Your task to perform on an android device: delete the emails in spam in the gmail app Image 0: 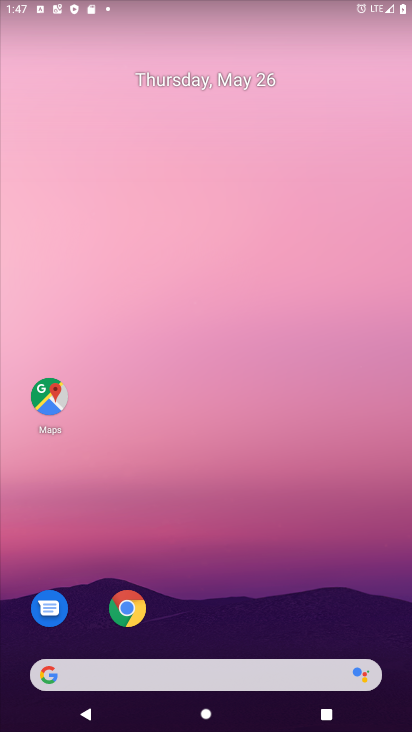
Step 0: drag from (376, 591) to (306, 264)
Your task to perform on an android device: delete the emails in spam in the gmail app Image 1: 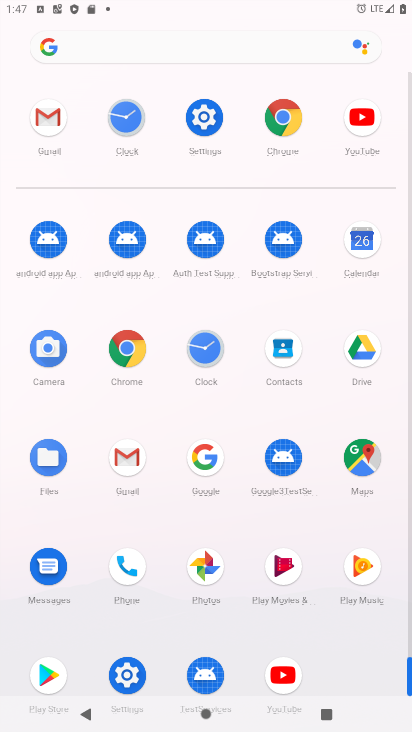
Step 1: click (126, 460)
Your task to perform on an android device: delete the emails in spam in the gmail app Image 2: 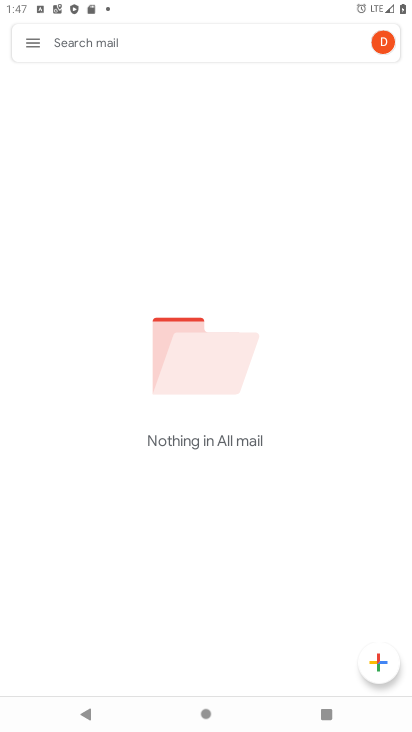
Step 2: click (28, 41)
Your task to perform on an android device: delete the emails in spam in the gmail app Image 3: 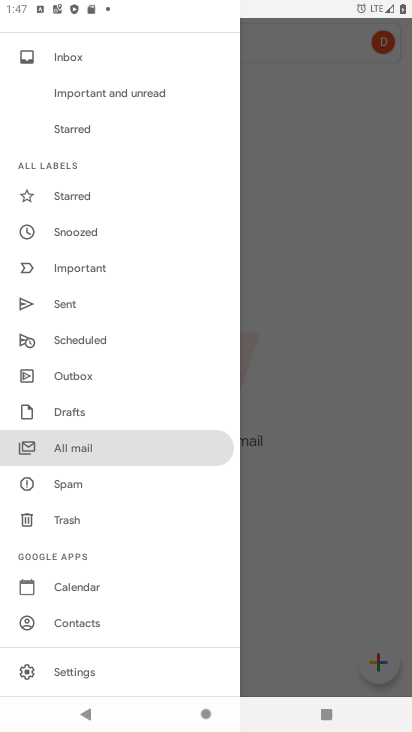
Step 3: click (75, 484)
Your task to perform on an android device: delete the emails in spam in the gmail app Image 4: 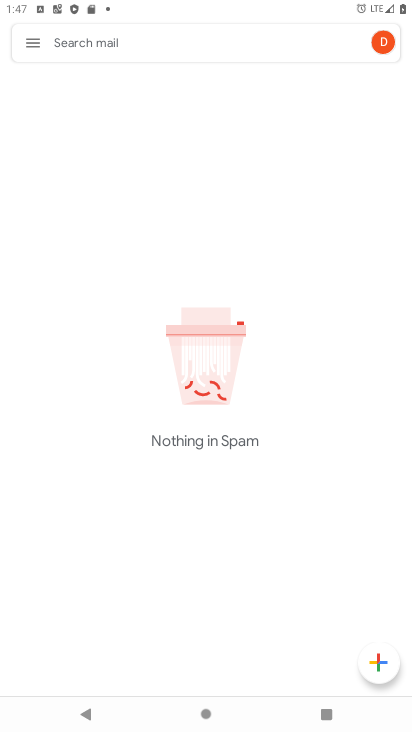
Step 4: task complete